Your task to perform on an android device: Do I have any events this weekend? Image 0: 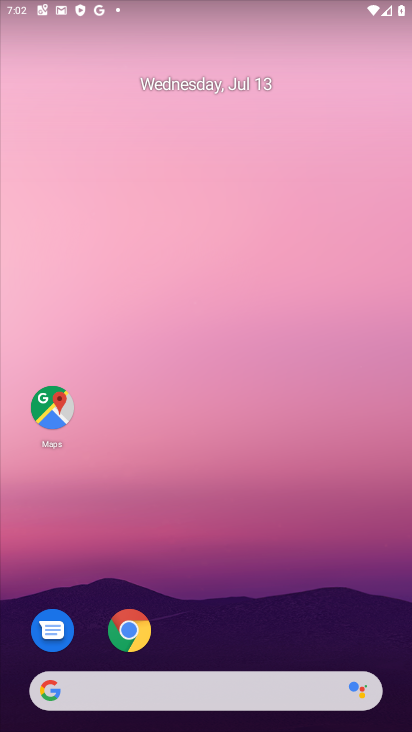
Step 0: drag from (363, 578) to (229, 12)
Your task to perform on an android device: Do I have any events this weekend? Image 1: 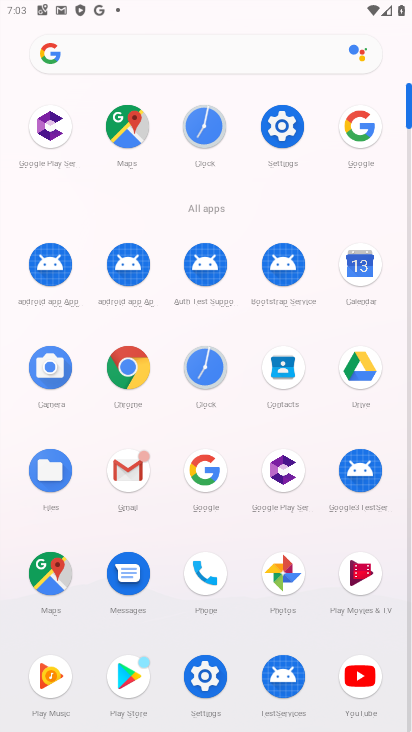
Step 1: click (356, 265)
Your task to perform on an android device: Do I have any events this weekend? Image 2: 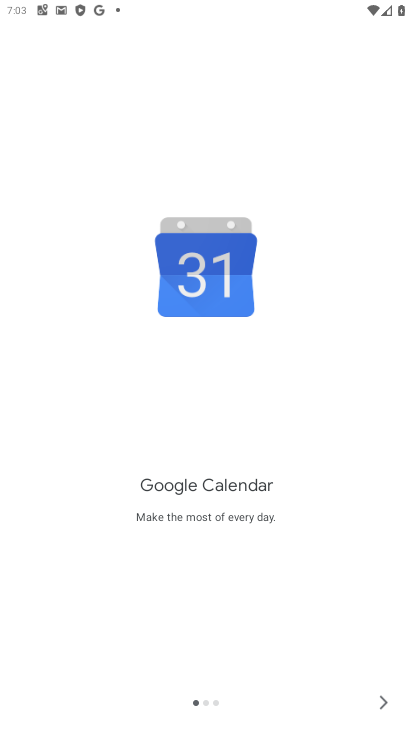
Step 2: click (383, 706)
Your task to perform on an android device: Do I have any events this weekend? Image 3: 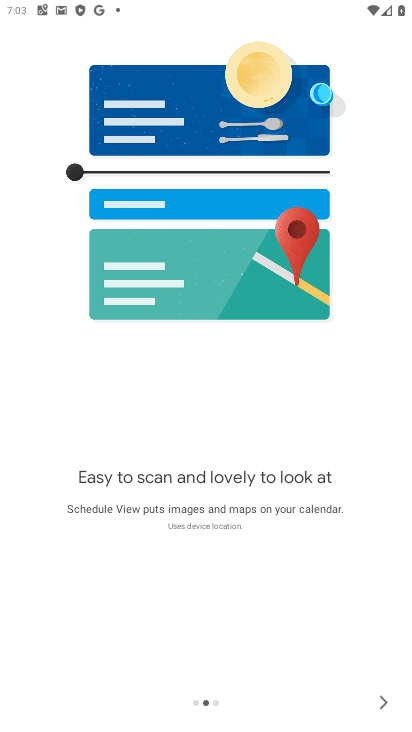
Step 3: click (383, 706)
Your task to perform on an android device: Do I have any events this weekend? Image 4: 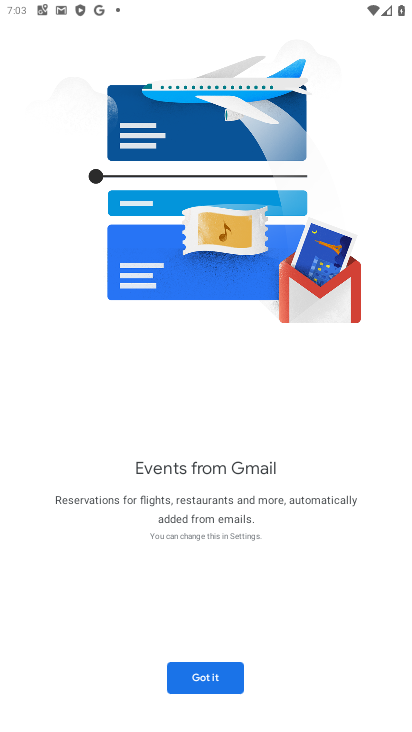
Step 4: click (203, 664)
Your task to perform on an android device: Do I have any events this weekend? Image 5: 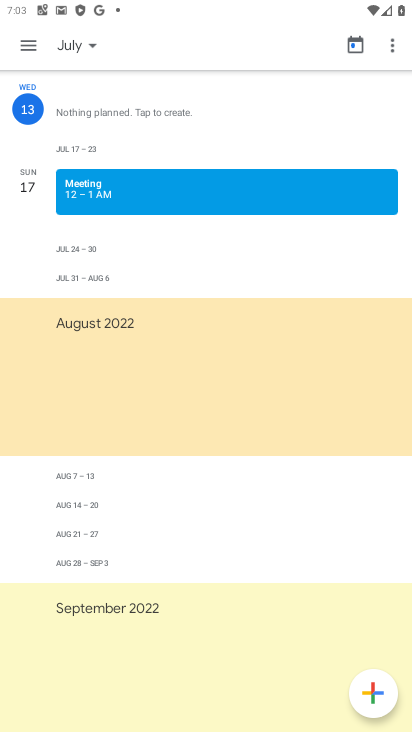
Step 5: click (79, 43)
Your task to perform on an android device: Do I have any events this weekend? Image 6: 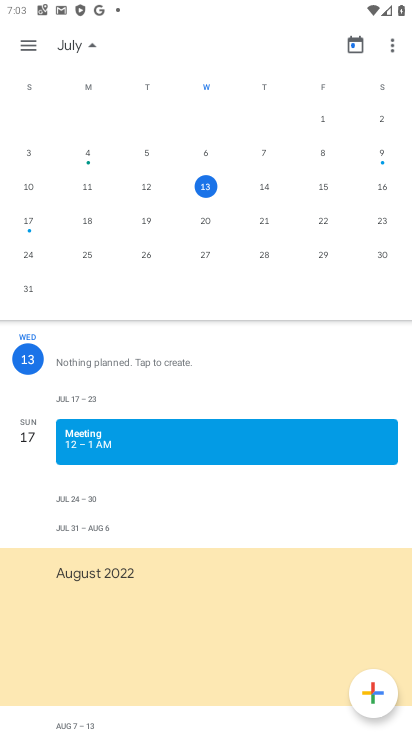
Step 6: click (31, 230)
Your task to perform on an android device: Do I have any events this weekend? Image 7: 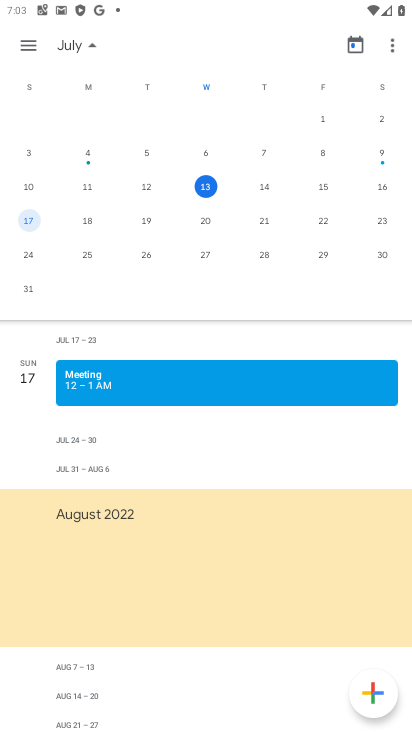
Step 7: click (218, 392)
Your task to perform on an android device: Do I have any events this weekend? Image 8: 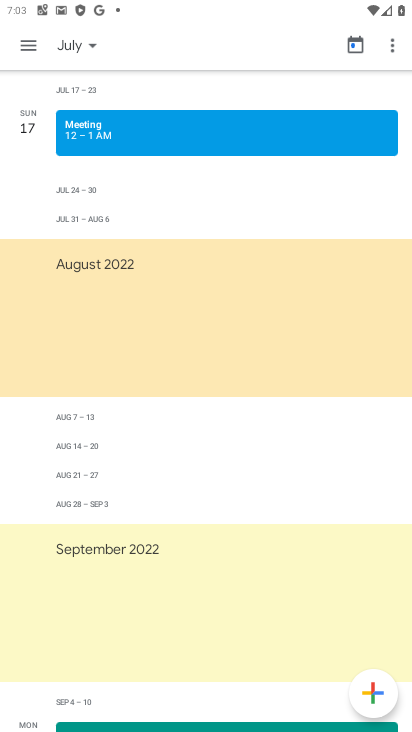
Step 8: task complete